Your task to perform on an android device: Go to Maps Image 0: 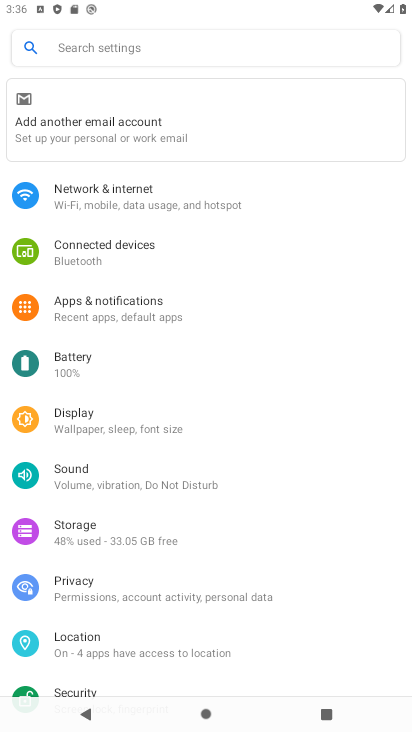
Step 0: press home button
Your task to perform on an android device: Go to Maps Image 1: 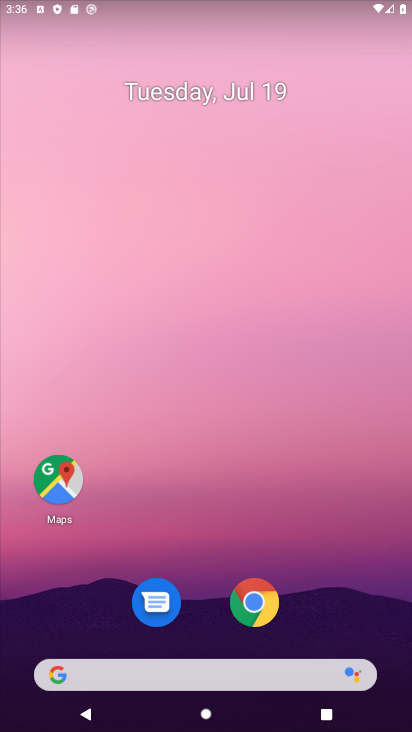
Step 1: click (50, 482)
Your task to perform on an android device: Go to Maps Image 2: 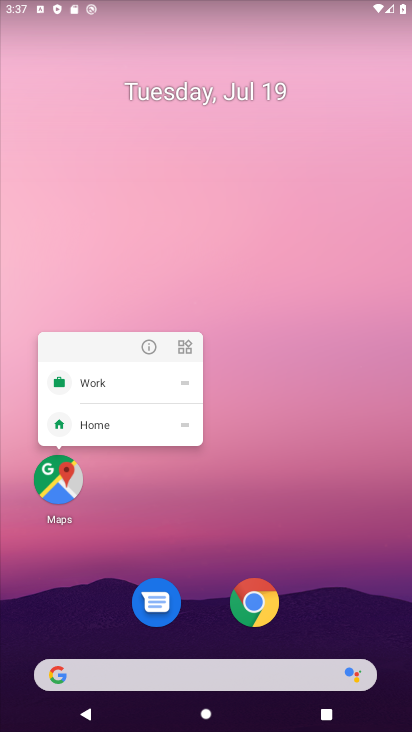
Step 2: click (63, 478)
Your task to perform on an android device: Go to Maps Image 3: 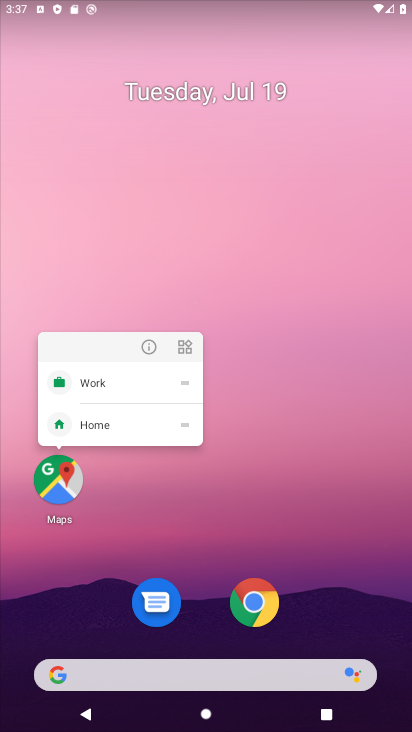
Step 3: click (45, 488)
Your task to perform on an android device: Go to Maps Image 4: 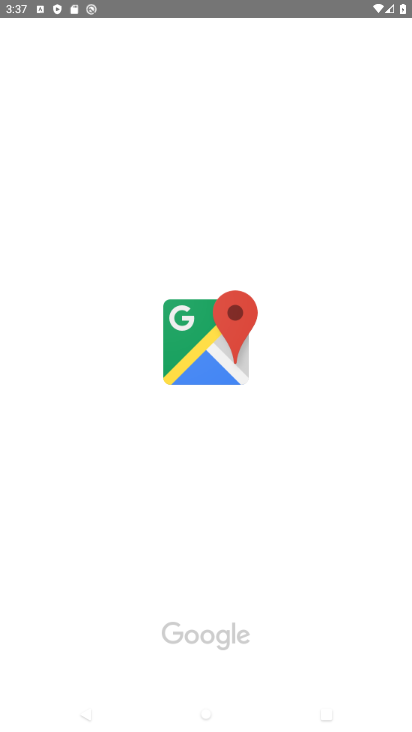
Step 4: task complete